Your task to perform on an android device: clear all cookies in the chrome app Image 0: 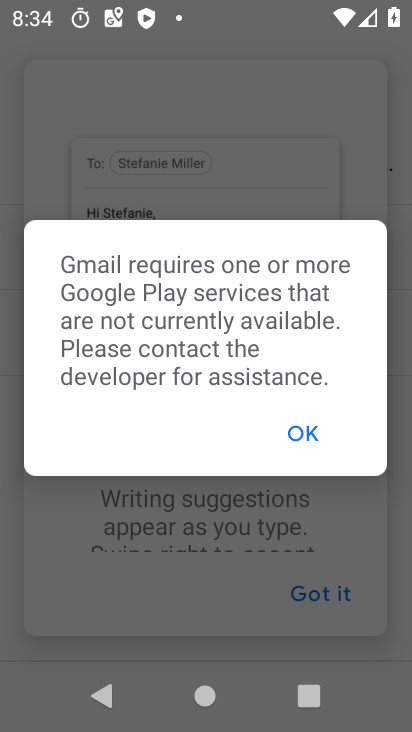
Step 0: press home button
Your task to perform on an android device: clear all cookies in the chrome app Image 1: 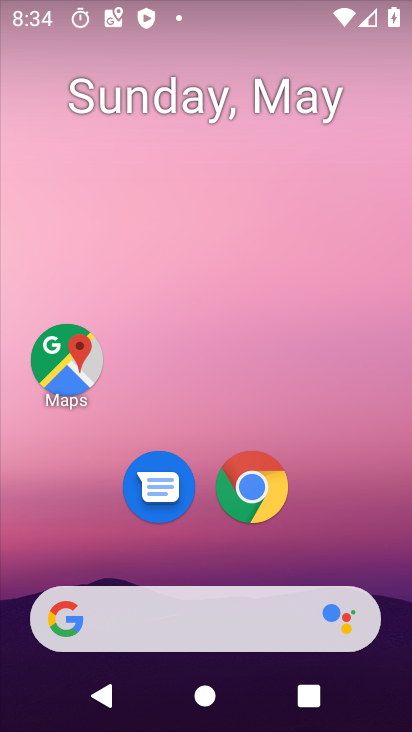
Step 1: click (17, 618)
Your task to perform on an android device: clear all cookies in the chrome app Image 2: 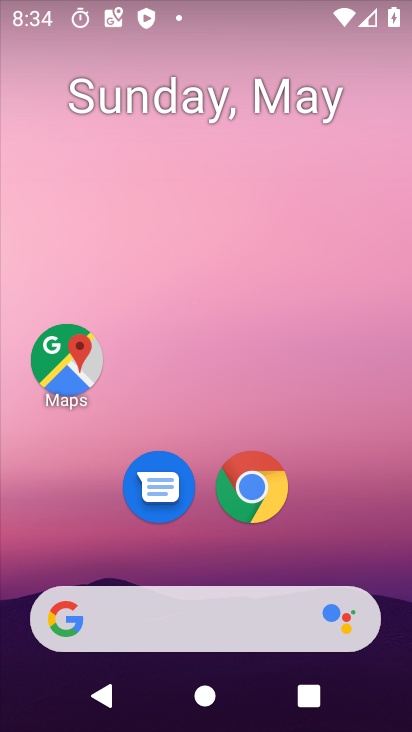
Step 2: click (272, 466)
Your task to perform on an android device: clear all cookies in the chrome app Image 3: 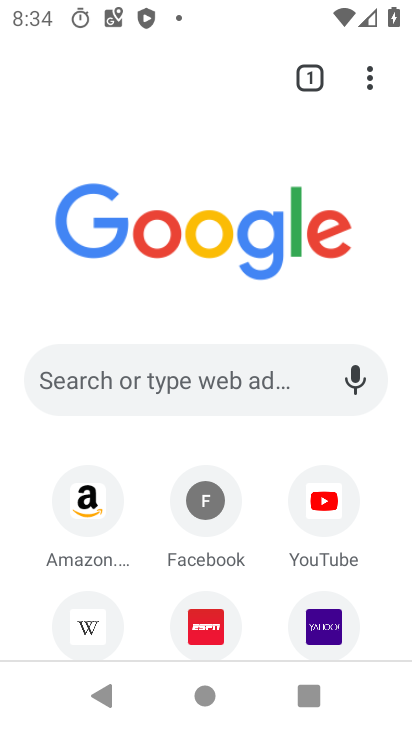
Step 3: click (376, 81)
Your task to perform on an android device: clear all cookies in the chrome app Image 4: 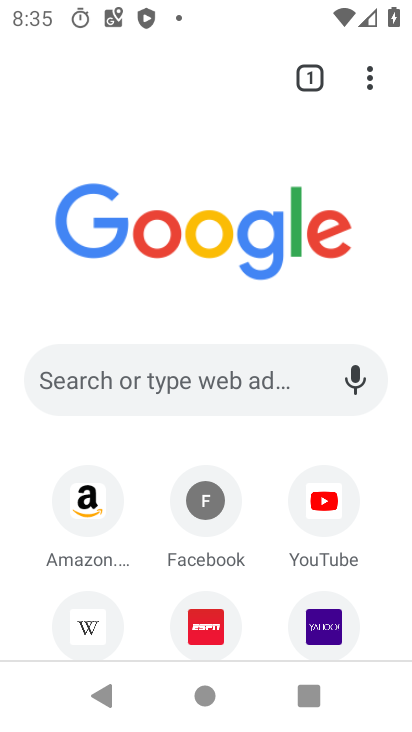
Step 4: click (368, 81)
Your task to perform on an android device: clear all cookies in the chrome app Image 5: 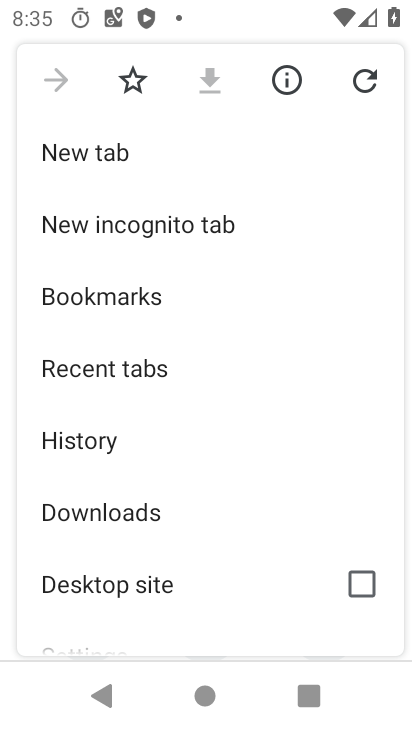
Step 5: drag from (17, 575) to (215, 125)
Your task to perform on an android device: clear all cookies in the chrome app Image 6: 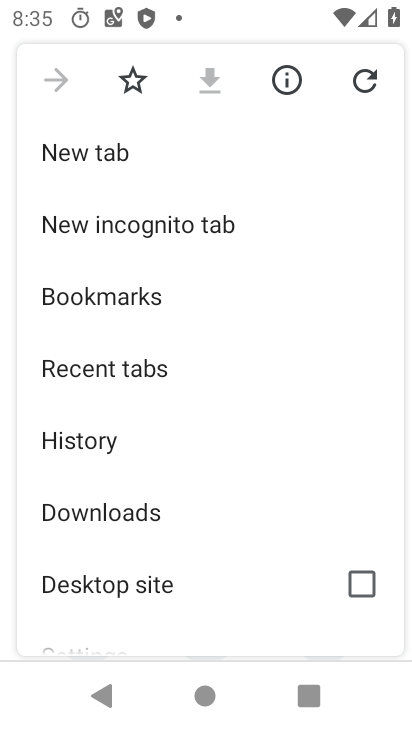
Step 6: drag from (70, 633) to (275, 112)
Your task to perform on an android device: clear all cookies in the chrome app Image 7: 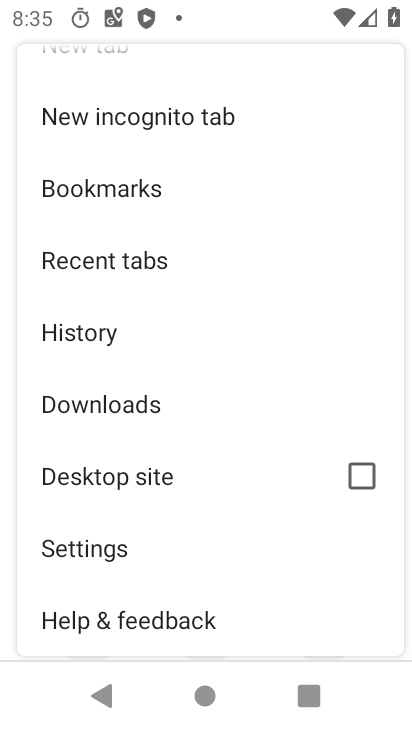
Step 7: click (108, 551)
Your task to perform on an android device: clear all cookies in the chrome app Image 8: 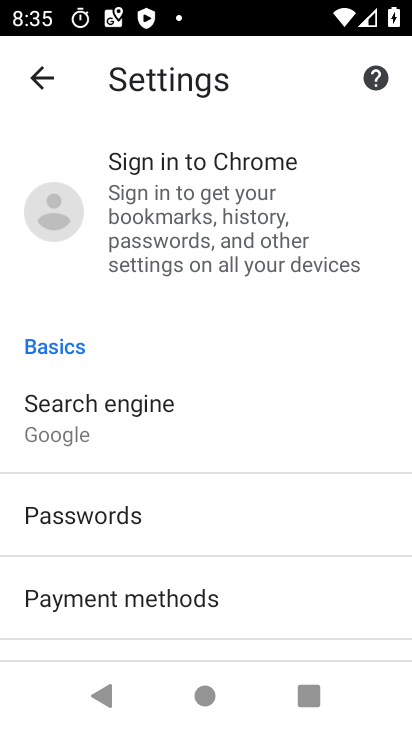
Step 8: drag from (48, 396) to (158, 239)
Your task to perform on an android device: clear all cookies in the chrome app Image 9: 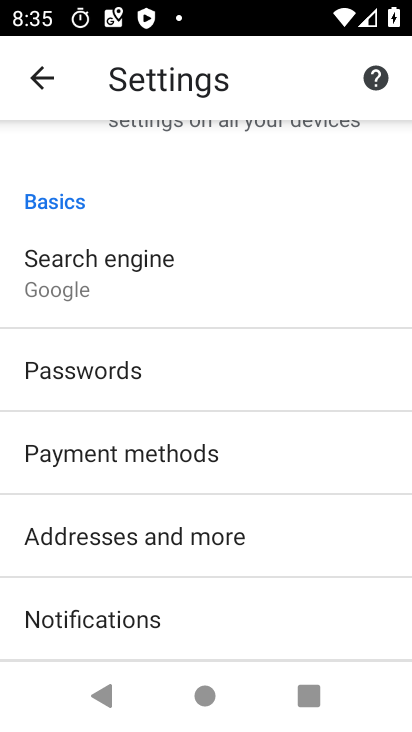
Step 9: click (36, 78)
Your task to perform on an android device: clear all cookies in the chrome app Image 10: 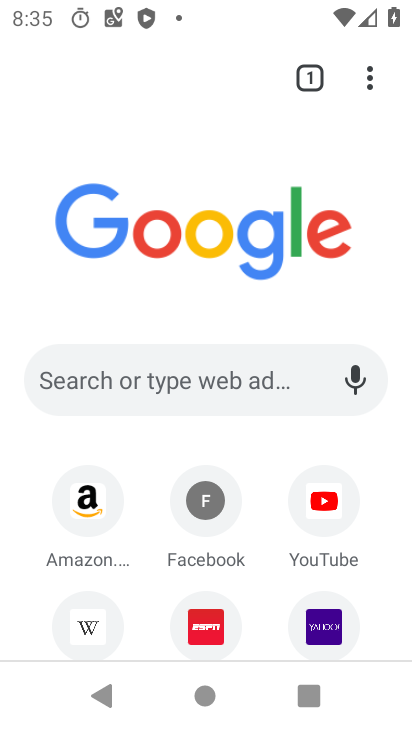
Step 10: click (373, 78)
Your task to perform on an android device: clear all cookies in the chrome app Image 11: 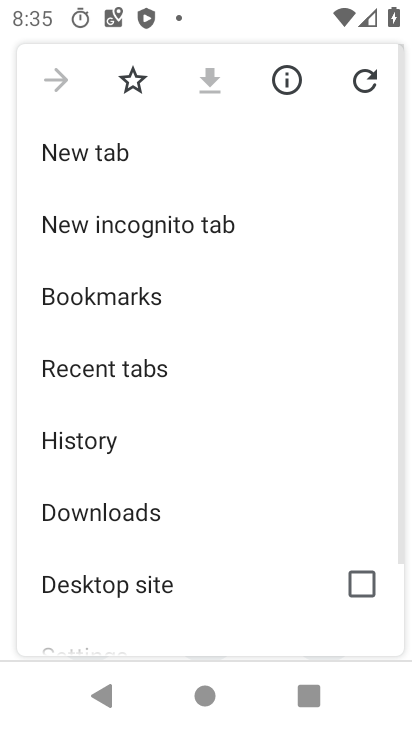
Step 11: click (108, 434)
Your task to perform on an android device: clear all cookies in the chrome app Image 12: 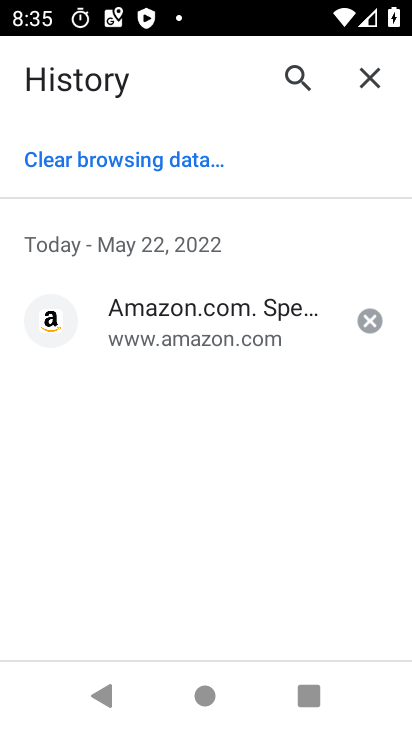
Step 12: click (223, 147)
Your task to perform on an android device: clear all cookies in the chrome app Image 13: 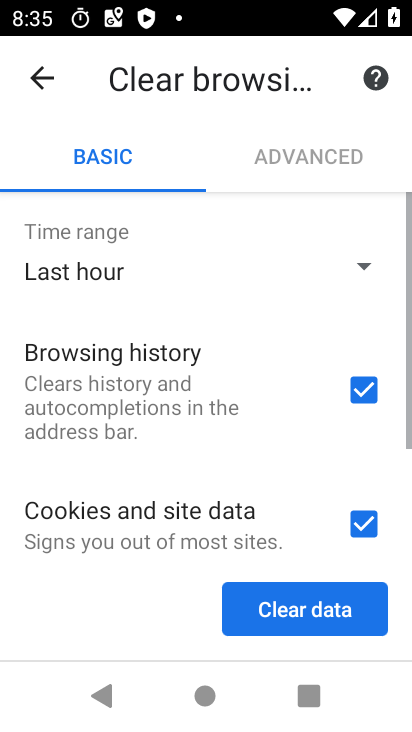
Step 13: click (271, 620)
Your task to perform on an android device: clear all cookies in the chrome app Image 14: 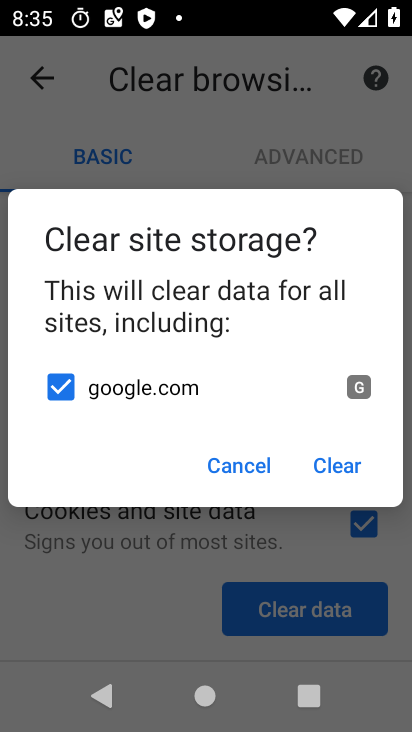
Step 14: click (330, 463)
Your task to perform on an android device: clear all cookies in the chrome app Image 15: 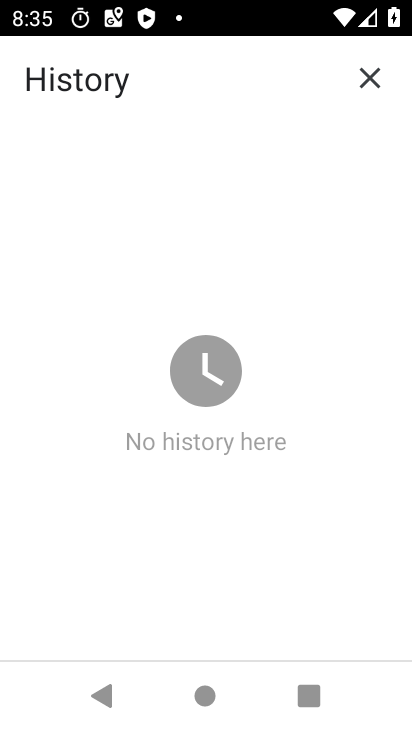
Step 15: task complete